Your task to perform on an android device: Open network settings Image 0: 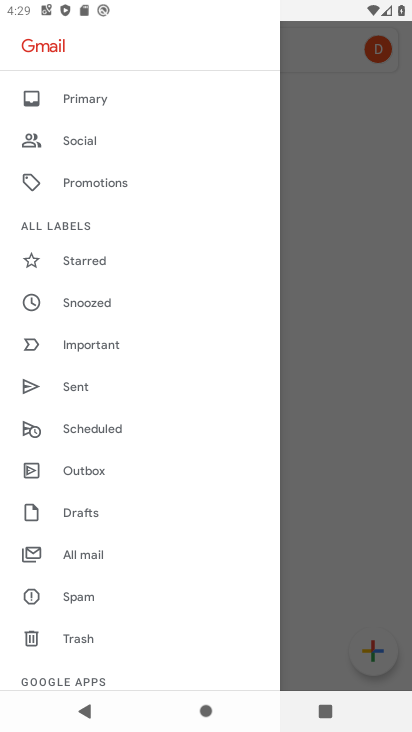
Step 0: press home button
Your task to perform on an android device: Open network settings Image 1: 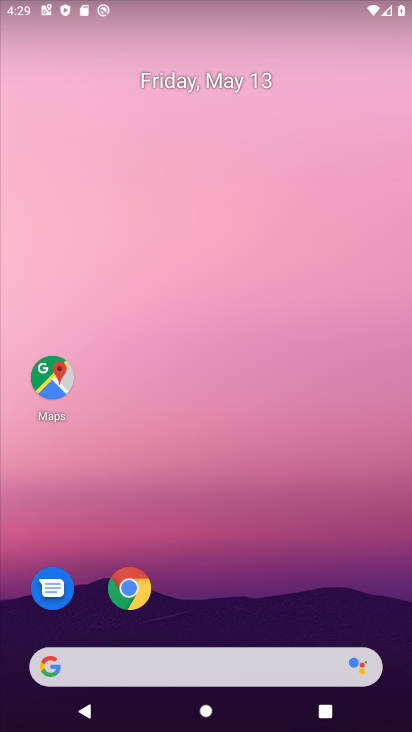
Step 1: drag from (164, 625) to (321, 167)
Your task to perform on an android device: Open network settings Image 2: 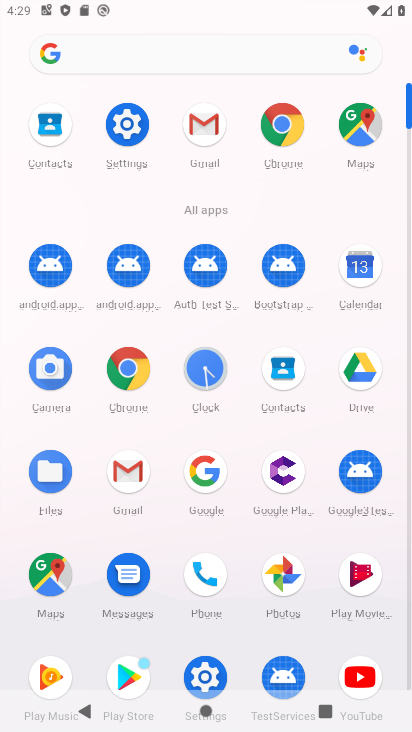
Step 2: click (152, 115)
Your task to perform on an android device: Open network settings Image 3: 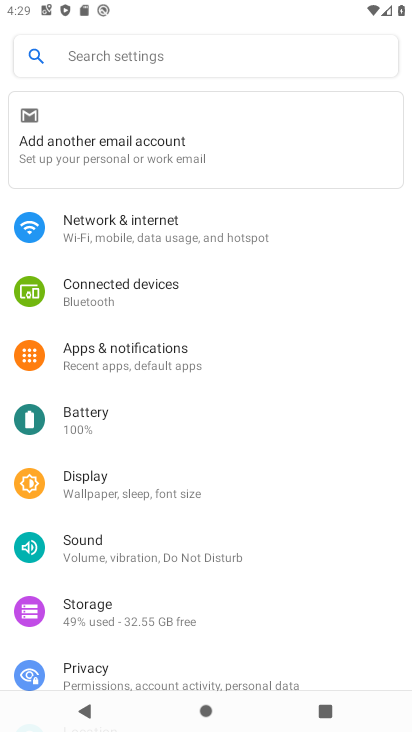
Step 3: click (193, 211)
Your task to perform on an android device: Open network settings Image 4: 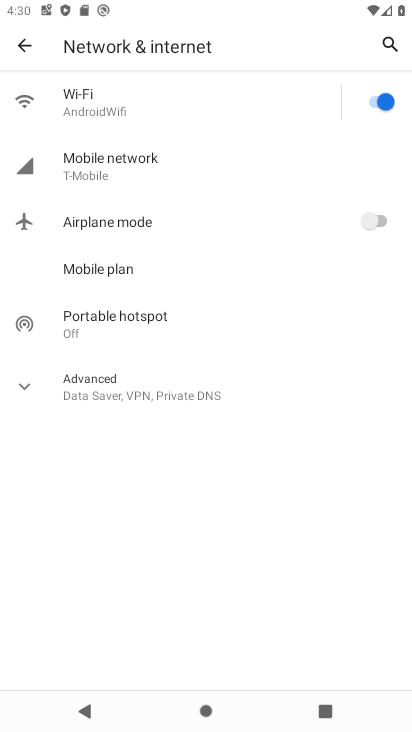
Step 4: click (146, 167)
Your task to perform on an android device: Open network settings Image 5: 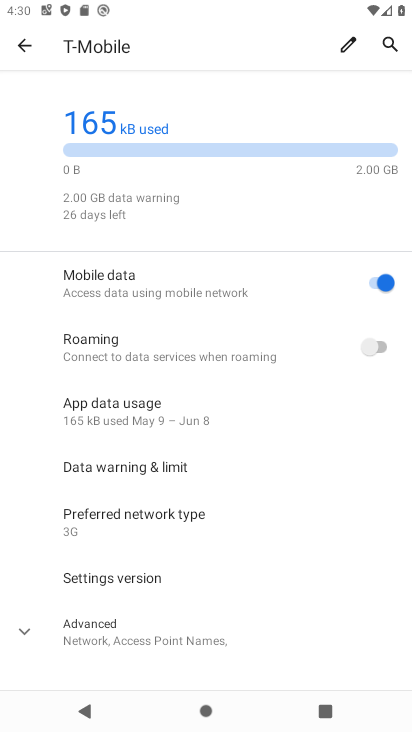
Step 5: task complete